Your task to perform on an android device: Open Google Chrome Image 0: 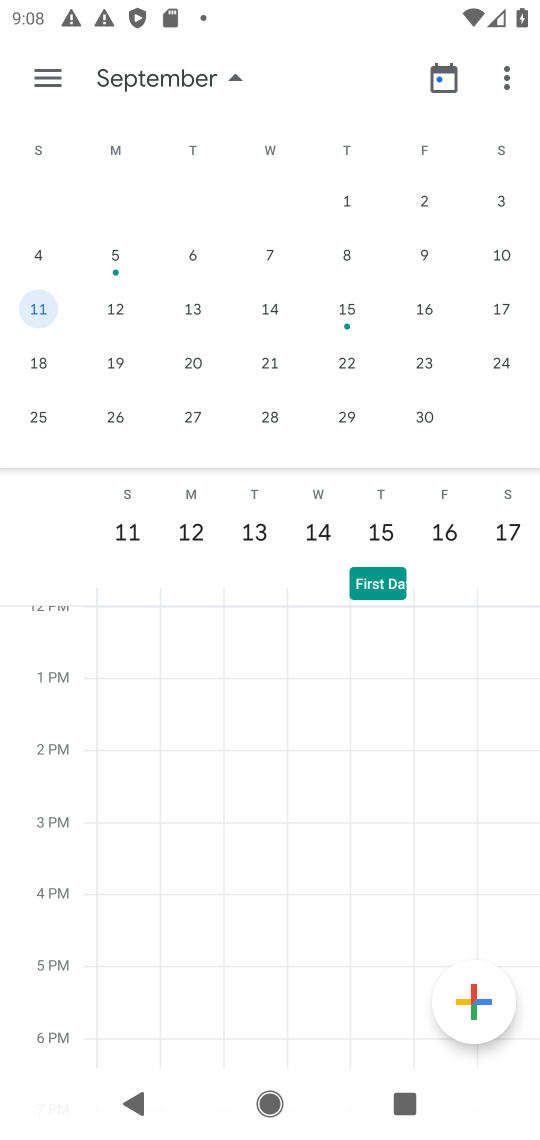
Step 0: press home button
Your task to perform on an android device: Open Google Chrome Image 1: 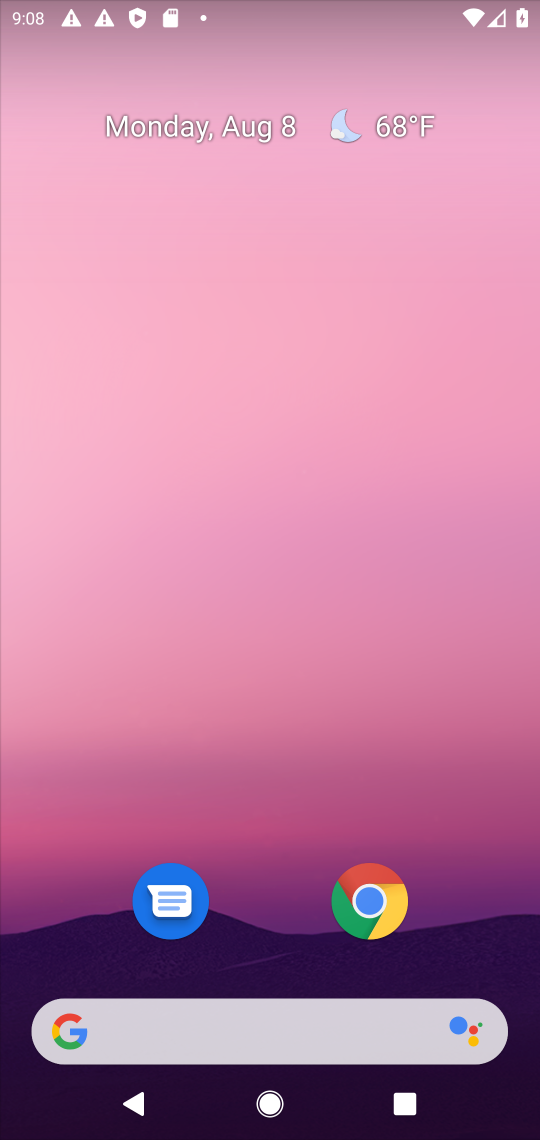
Step 1: click (363, 919)
Your task to perform on an android device: Open Google Chrome Image 2: 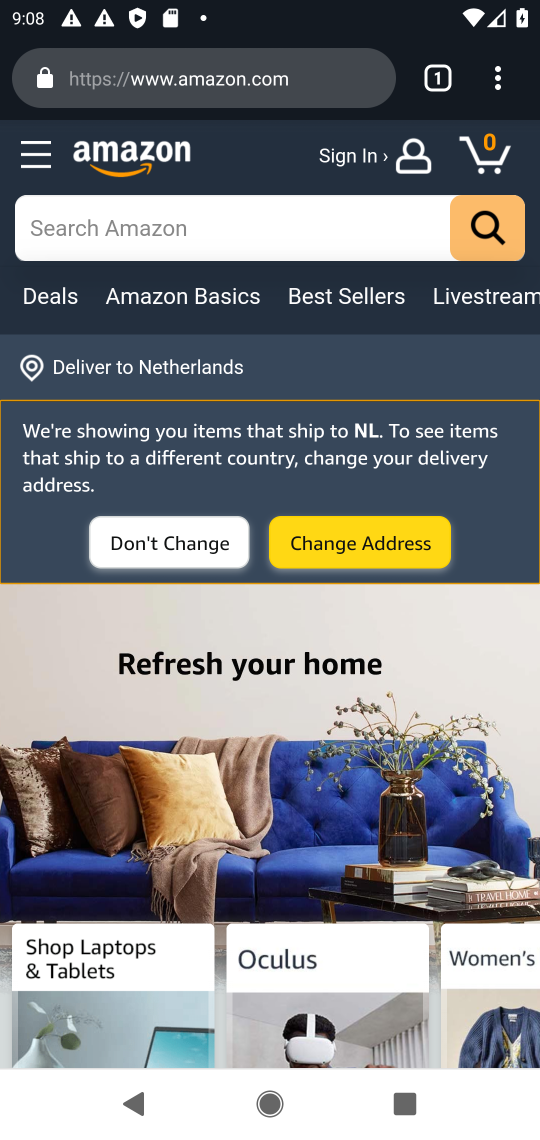
Step 2: task complete